Your task to perform on an android device: turn on notifications settings in the gmail app Image 0: 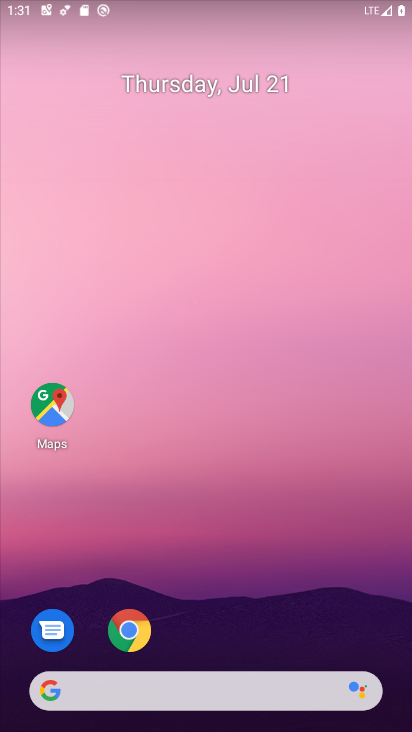
Step 0: press home button
Your task to perform on an android device: turn on notifications settings in the gmail app Image 1: 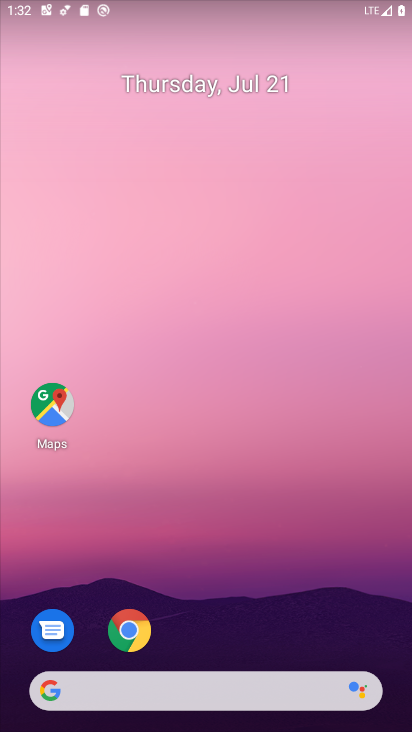
Step 1: drag from (244, 489) to (270, 88)
Your task to perform on an android device: turn on notifications settings in the gmail app Image 2: 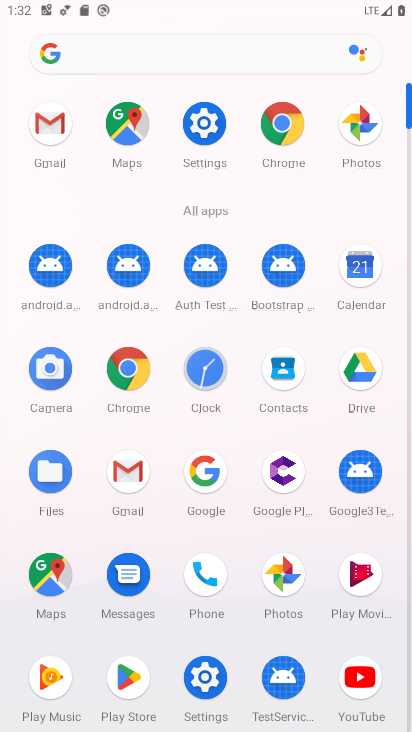
Step 2: click (130, 466)
Your task to perform on an android device: turn on notifications settings in the gmail app Image 3: 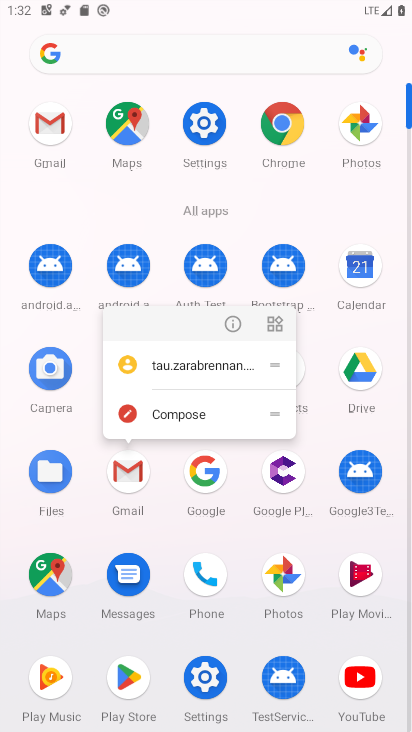
Step 3: click (227, 332)
Your task to perform on an android device: turn on notifications settings in the gmail app Image 4: 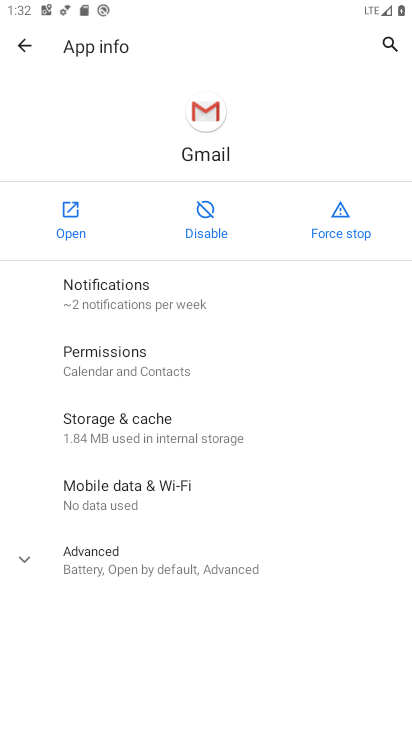
Step 4: click (86, 319)
Your task to perform on an android device: turn on notifications settings in the gmail app Image 5: 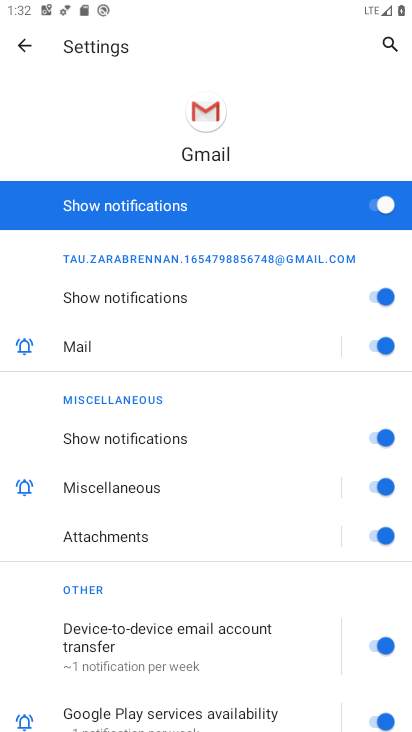
Step 5: task complete